Your task to perform on an android device: delete browsing data in the chrome app Image 0: 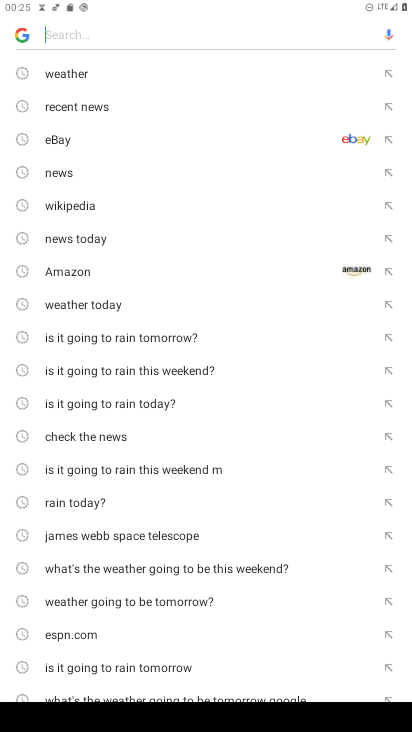
Step 0: press home button
Your task to perform on an android device: delete browsing data in the chrome app Image 1: 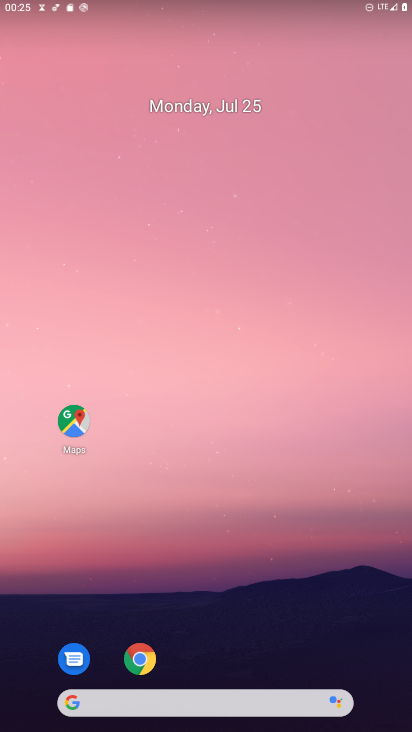
Step 1: drag from (183, 609) to (184, 221)
Your task to perform on an android device: delete browsing data in the chrome app Image 2: 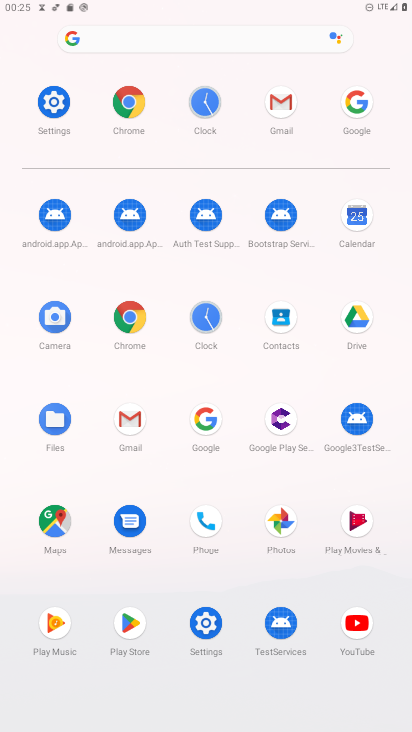
Step 2: click (122, 324)
Your task to perform on an android device: delete browsing data in the chrome app Image 3: 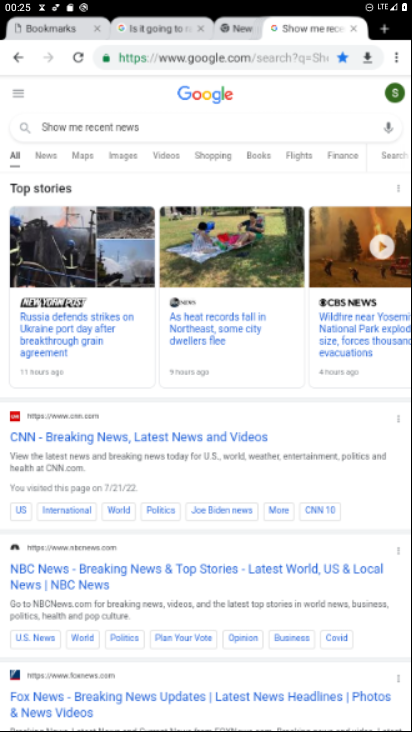
Step 3: click (396, 52)
Your task to perform on an android device: delete browsing data in the chrome app Image 4: 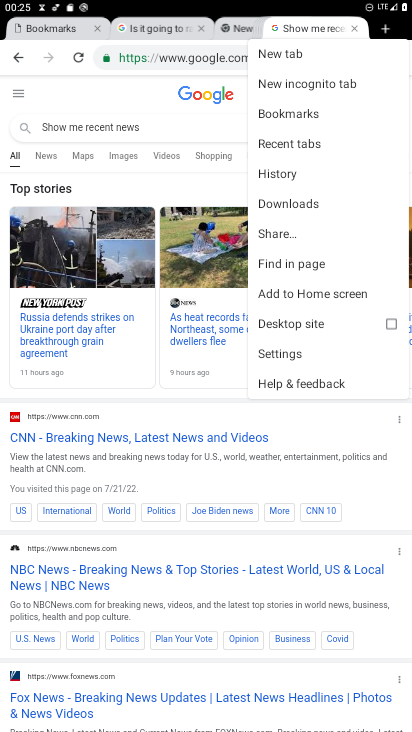
Step 4: click (298, 349)
Your task to perform on an android device: delete browsing data in the chrome app Image 5: 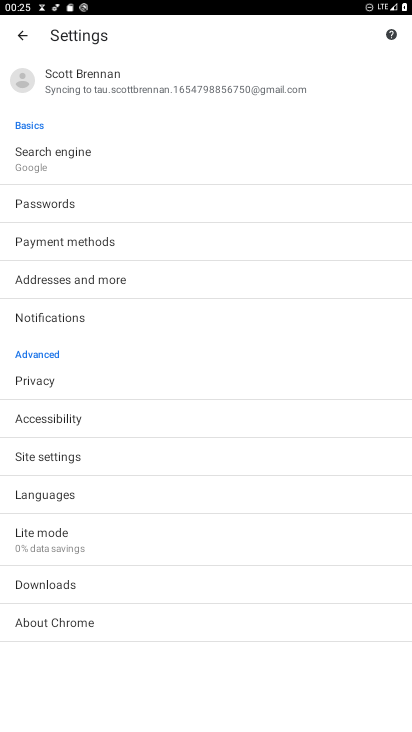
Step 5: click (35, 29)
Your task to perform on an android device: delete browsing data in the chrome app Image 6: 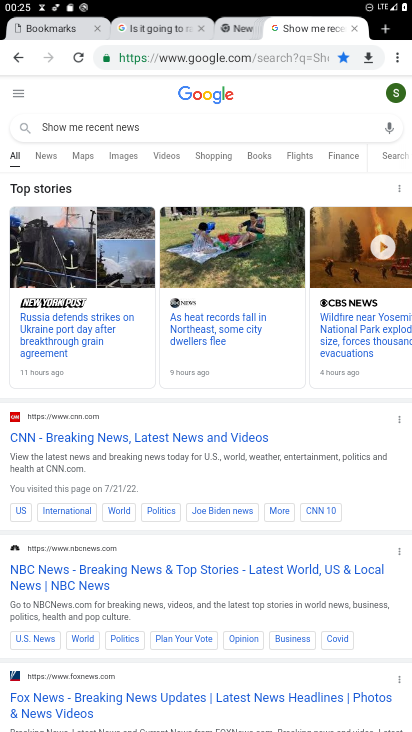
Step 6: click (396, 47)
Your task to perform on an android device: delete browsing data in the chrome app Image 7: 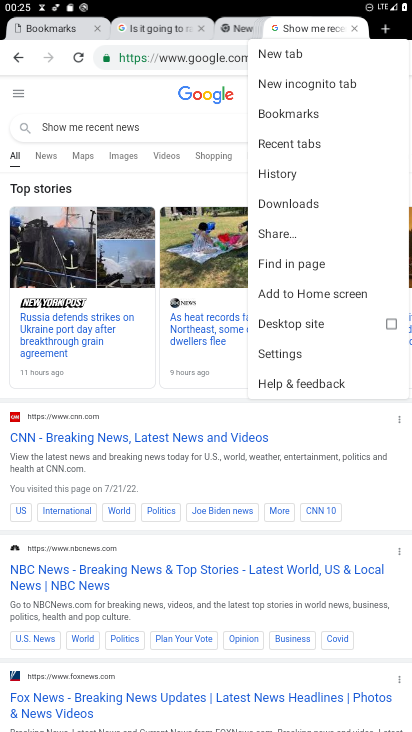
Step 7: click (268, 359)
Your task to perform on an android device: delete browsing data in the chrome app Image 8: 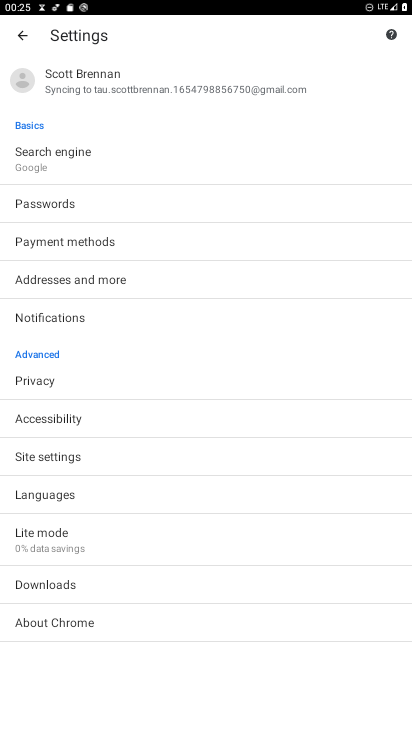
Step 8: click (62, 381)
Your task to perform on an android device: delete browsing data in the chrome app Image 9: 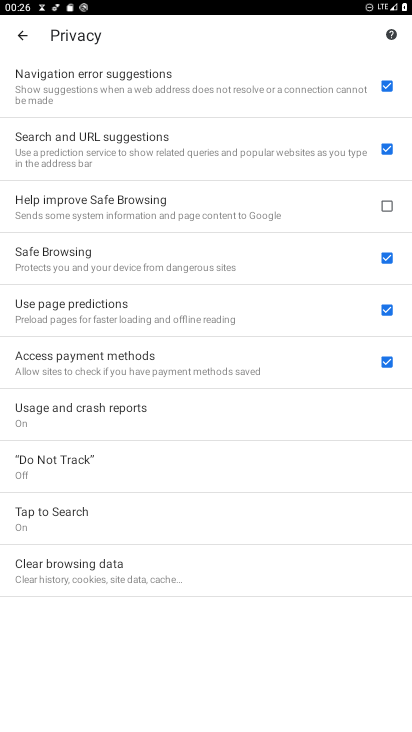
Step 9: click (277, 588)
Your task to perform on an android device: delete browsing data in the chrome app Image 10: 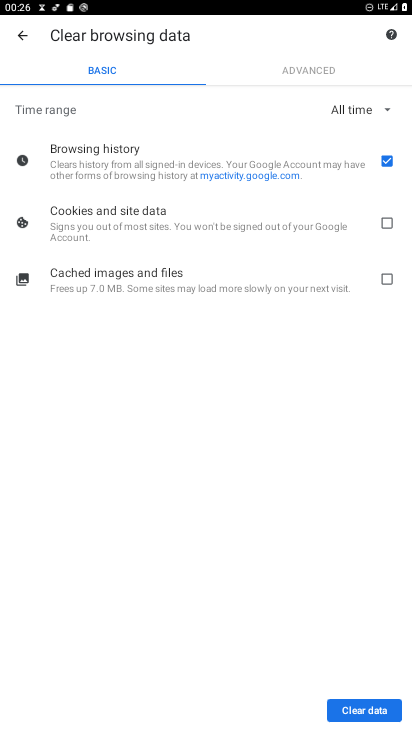
Step 10: click (374, 714)
Your task to perform on an android device: delete browsing data in the chrome app Image 11: 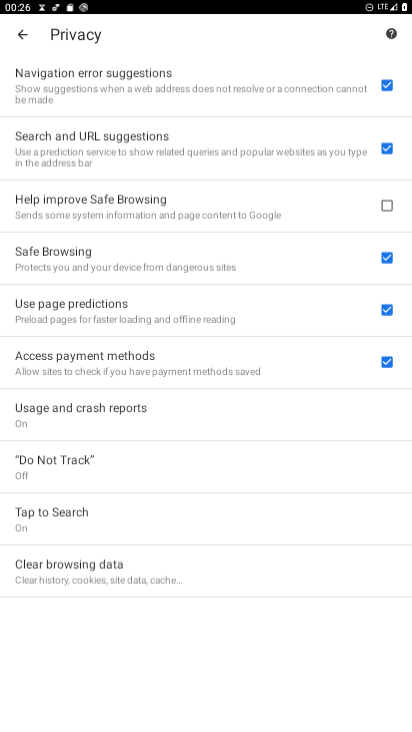
Step 11: click (399, 222)
Your task to perform on an android device: delete browsing data in the chrome app Image 12: 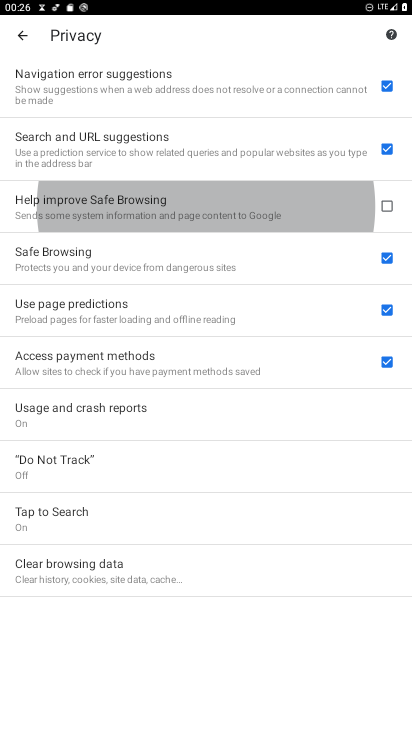
Step 12: click (386, 281)
Your task to perform on an android device: delete browsing data in the chrome app Image 13: 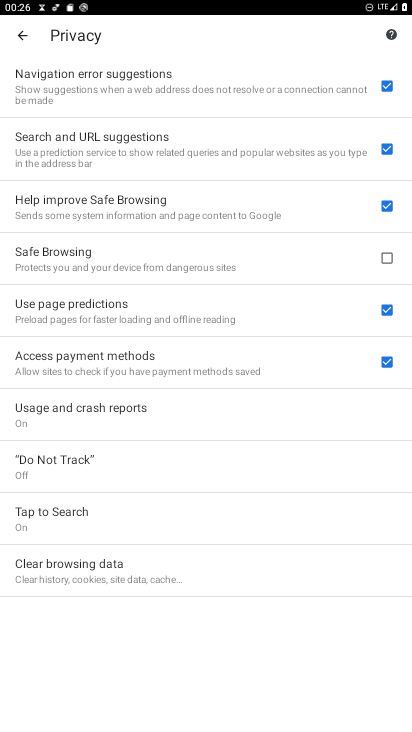
Step 13: click (106, 561)
Your task to perform on an android device: delete browsing data in the chrome app Image 14: 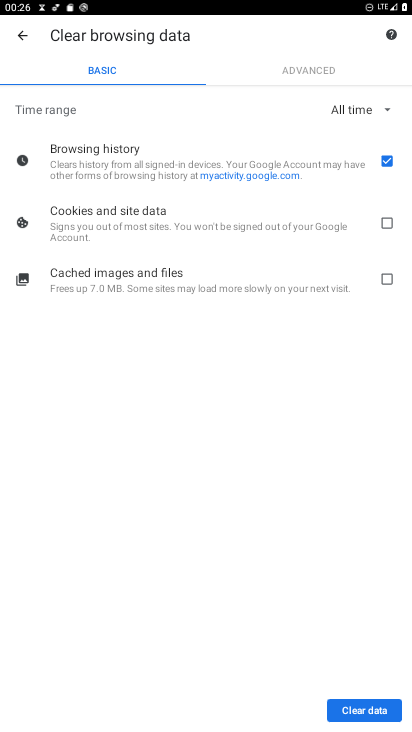
Step 14: click (375, 223)
Your task to perform on an android device: delete browsing data in the chrome app Image 15: 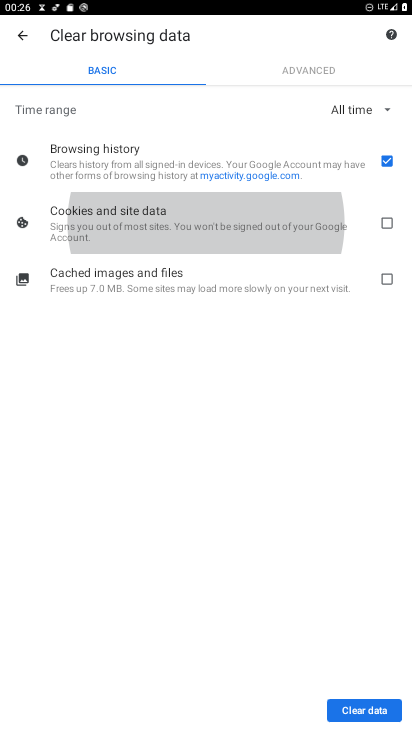
Step 15: click (381, 292)
Your task to perform on an android device: delete browsing data in the chrome app Image 16: 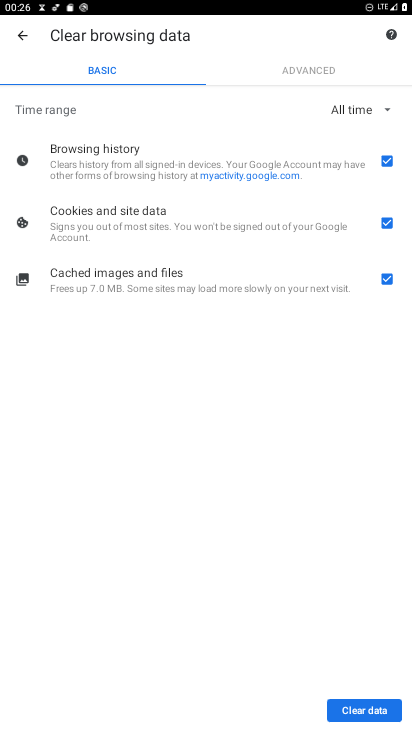
Step 16: click (353, 701)
Your task to perform on an android device: delete browsing data in the chrome app Image 17: 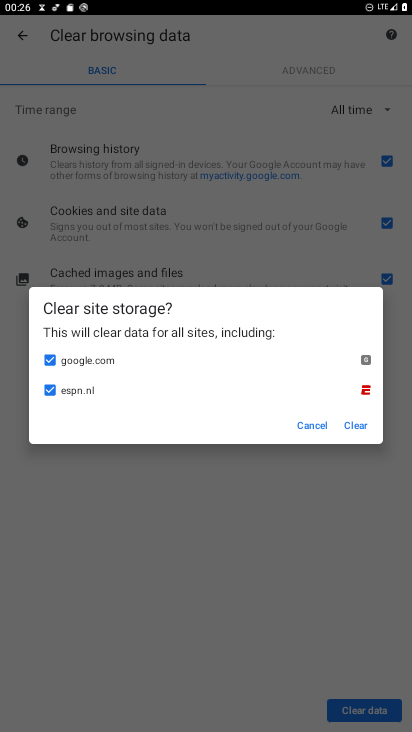
Step 17: click (351, 430)
Your task to perform on an android device: delete browsing data in the chrome app Image 18: 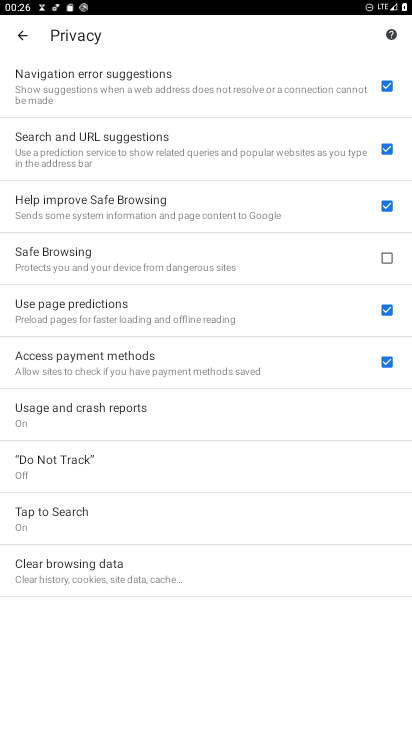
Step 18: task complete